Your task to perform on an android device: Search for pizza restaurants on Maps Image 0: 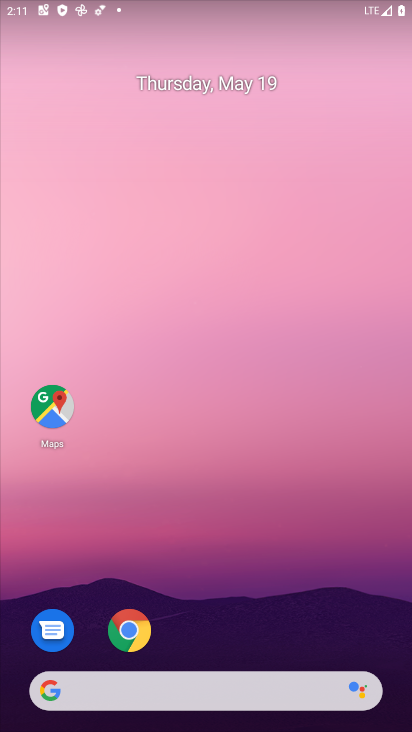
Step 0: click (49, 404)
Your task to perform on an android device: Search for pizza restaurants on Maps Image 1: 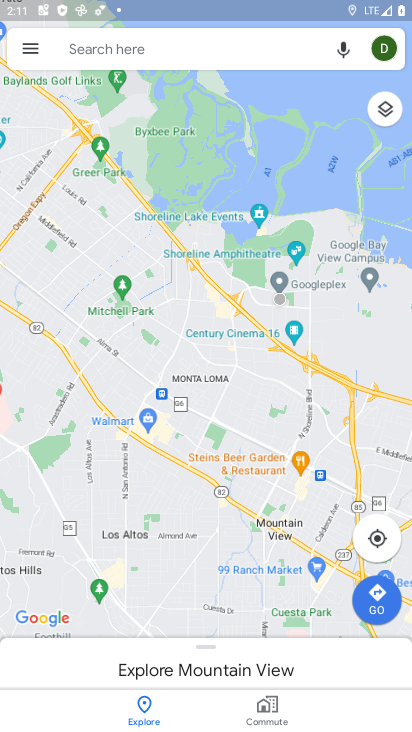
Step 1: click (134, 54)
Your task to perform on an android device: Search for pizza restaurants on Maps Image 2: 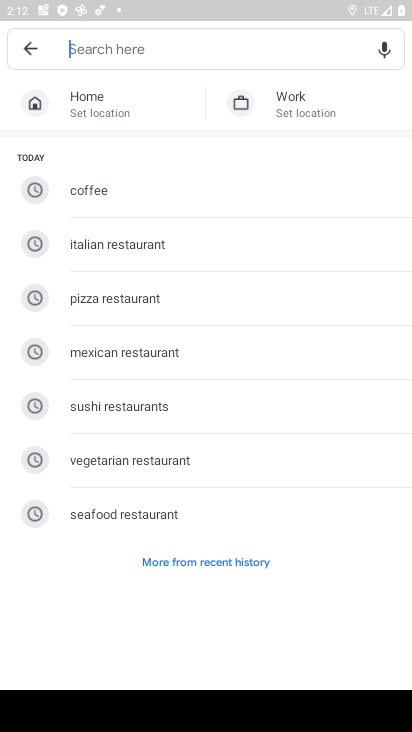
Step 2: type "pizza restaurants"
Your task to perform on an android device: Search for pizza restaurants on Maps Image 3: 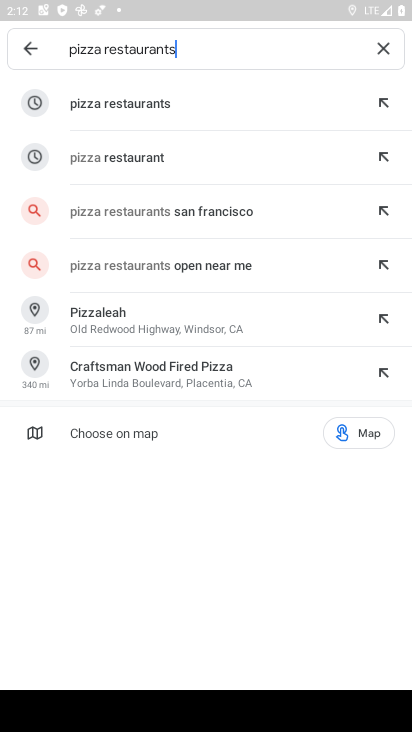
Step 3: click (119, 106)
Your task to perform on an android device: Search for pizza restaurants on Maps Image 4: 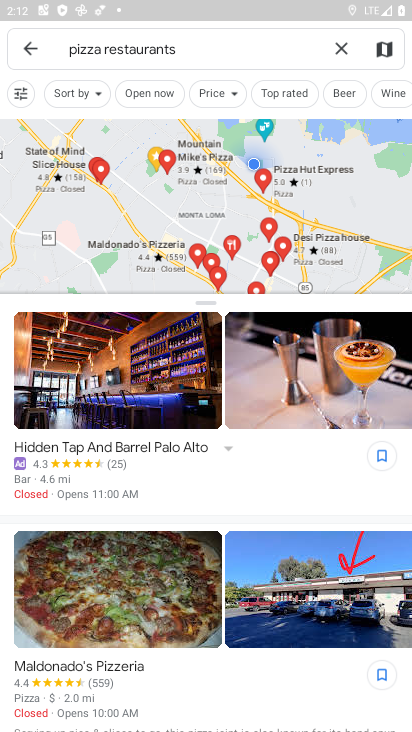
Step 4: task complete